Your task to perform on an android device: check the backup settings in the google photos Image 0: 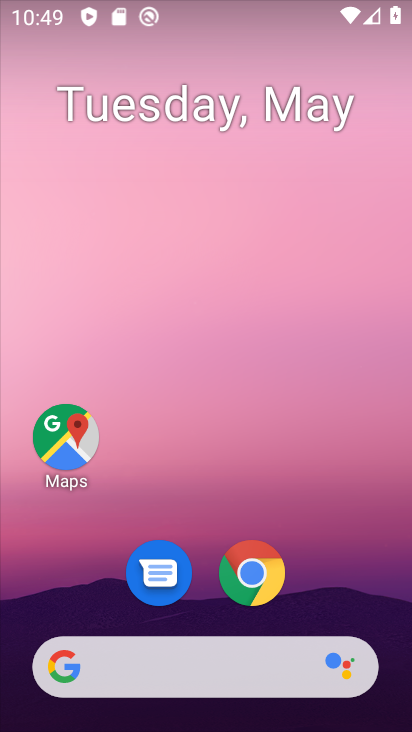
Step 0: drag from (214, 639) to (236, 220)
Your task to perform on an android device: check the backup settings in the google photos Image 1: 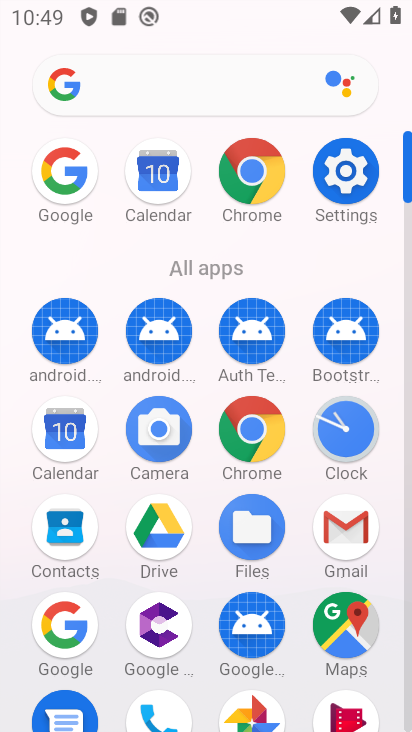
Step 1: drag from (207, 652) to (209, 303)
Your task to perform on an android device: check the backup settings in the google photos Image 2: 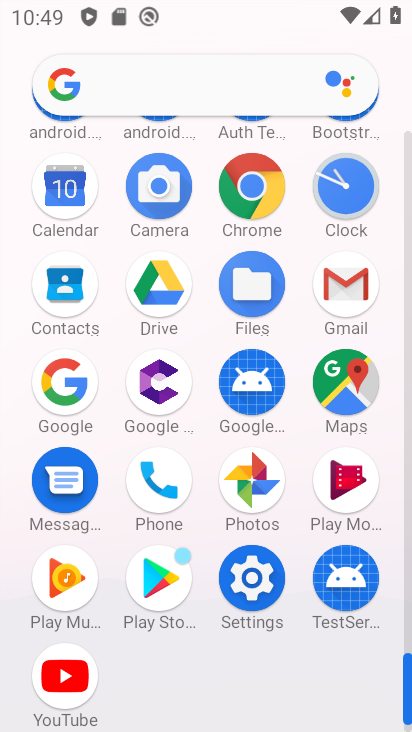
Step 2: click (257, 493)
Your task to perform on an android device: check the backup settings in the google photos Image 3: 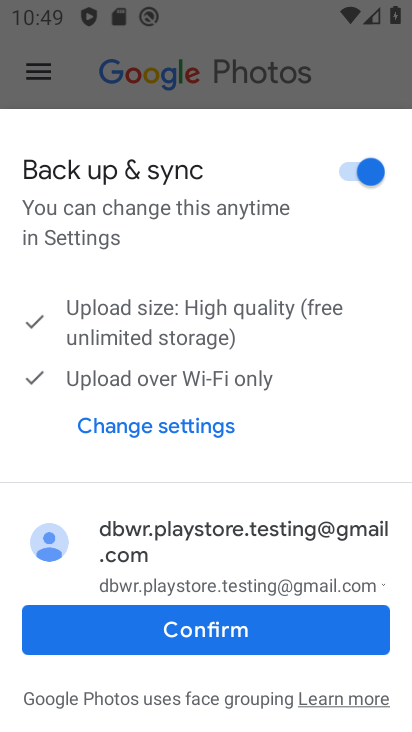
Step 3: click (209, 634)
Your task to perform on an android device: check the backup settings in the google photos Image 4: 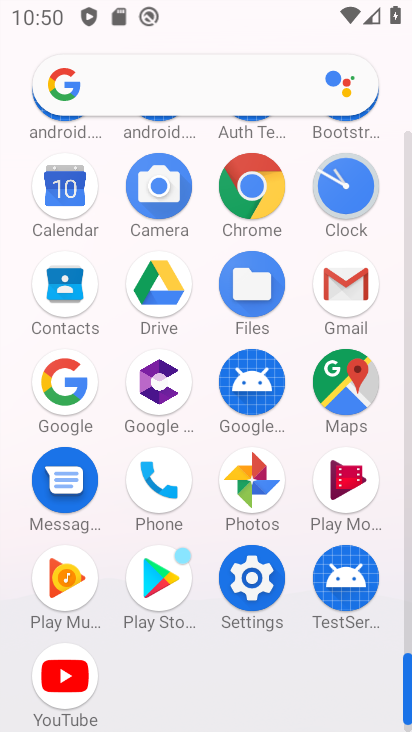
Step 4: task complete